Your task to perform on an android device: turn on translation in the chrome app Image 0: 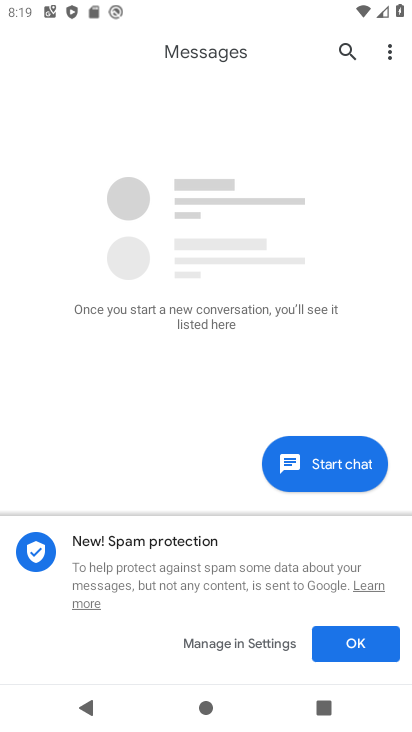
Step 0: press home button
Your task to perform on an android device: turn on translation in the chrome app Image 1: 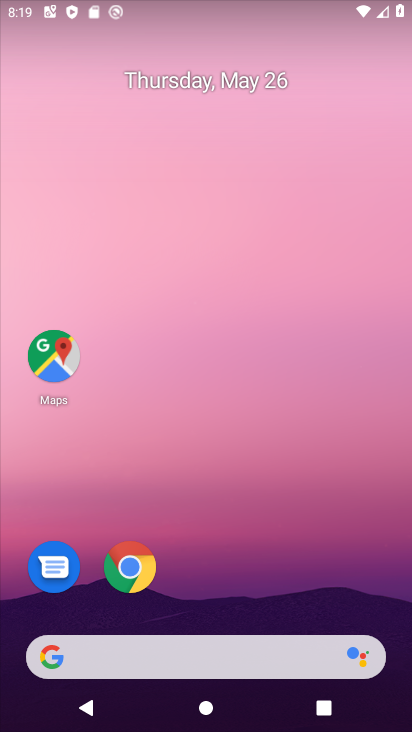
Step 1: click (129, 564)
Your task to perform on an android device: turn on translation in the chrome app Image 2: 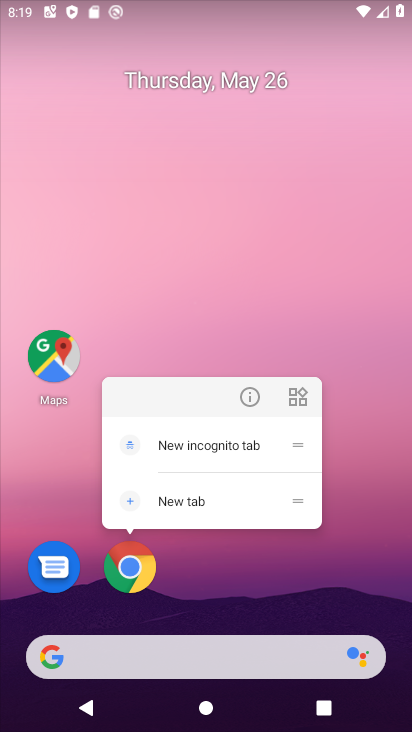
Step 2: click (136, 571)
Your task to perform on an android device: turn on translation in the chrome app Image 3: 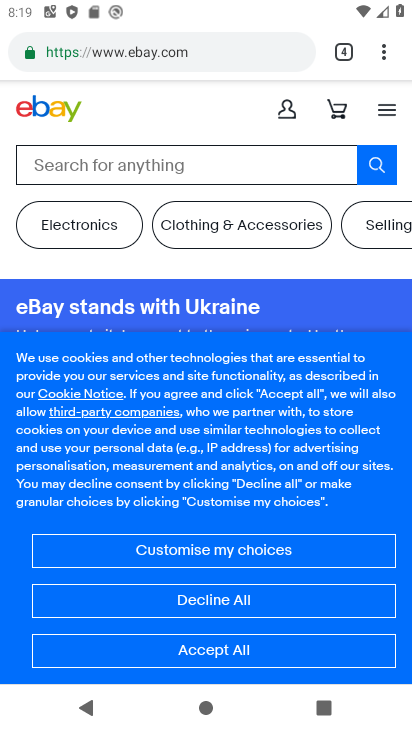
Step 3: drag from (384, 61) to (255, 609)
Your task to perform on an android device: turn on translation in the chrome app Image 4: 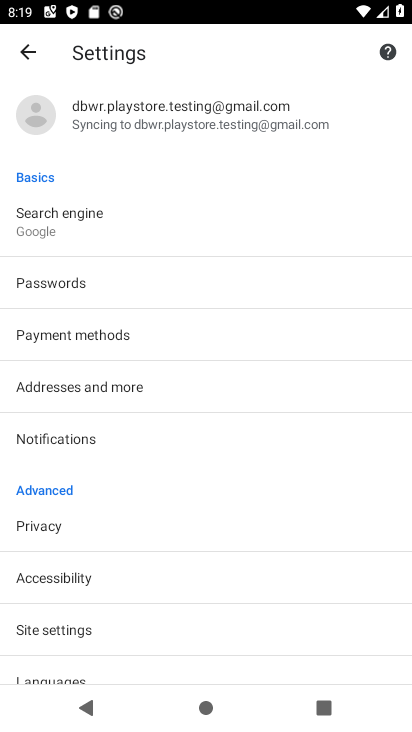
Step 4: drag from (132, 609) to (253, 308)
Your task to perform on an android device: turn on translation in the chrome app Image 5: 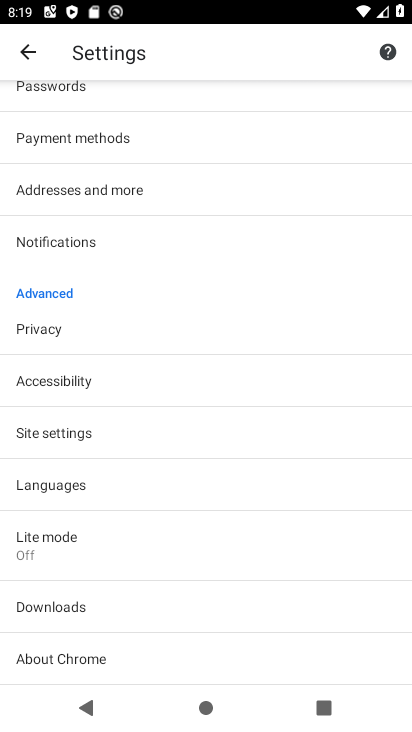
Step 5: click (97, 487)
Your task to perform on an android device: turn on translation in the chrome app Image 6: 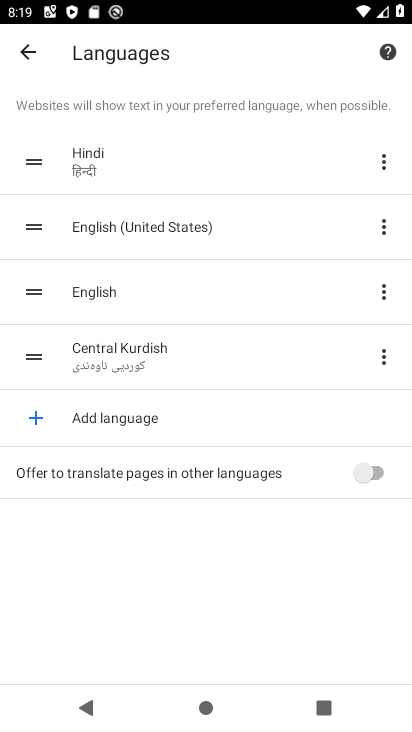
Step 6: click (380, 474)
Your task to perform on an android device: turn on translation in the chrome app Image 7: 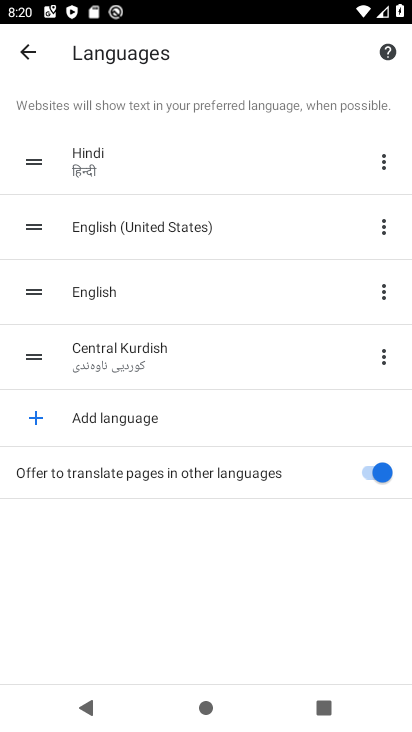
Step 7: task complete